Your task to perform on an android device: Search for Mexican restaurants on Maps Image 0: 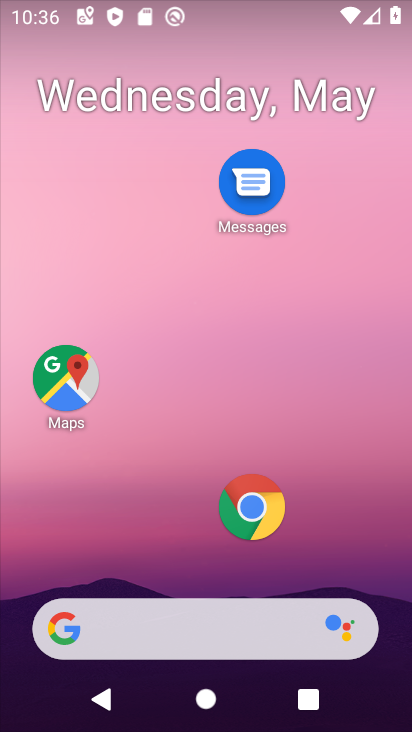
Step 0: click (68, 380)
Your task to perform on an android device: Search for Mexican restaurants on Maps Image 1: 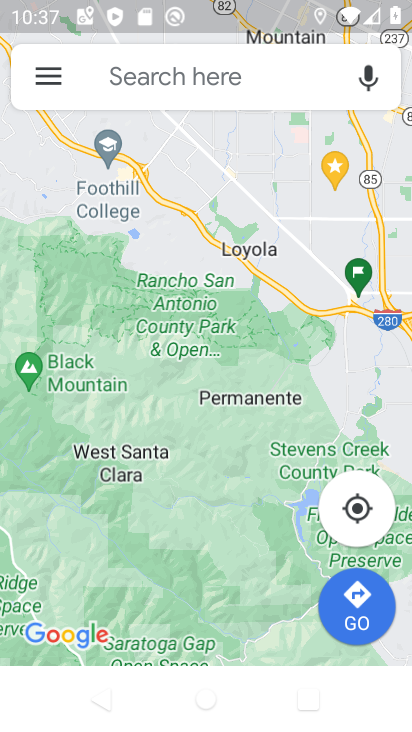
Step 1: click (164, 70)
Your task to perform on an android device: Search for Mexican restaurants on Maps Image 2: 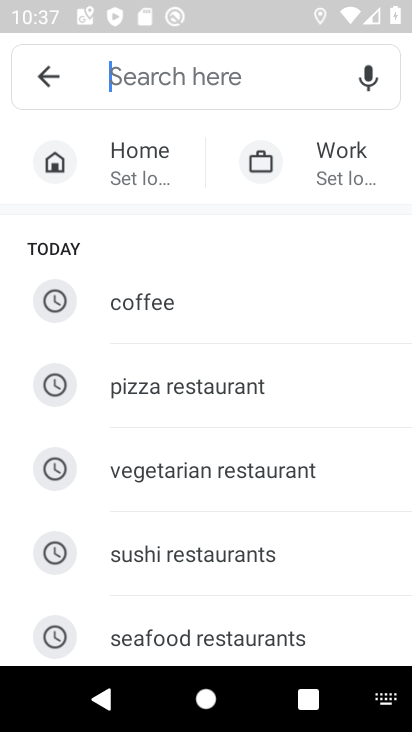
Step 2: drag from (189, 594) to (226, 180)
Your task to perform on an android device: Search for Mexican restaurants on Maps Image 3: 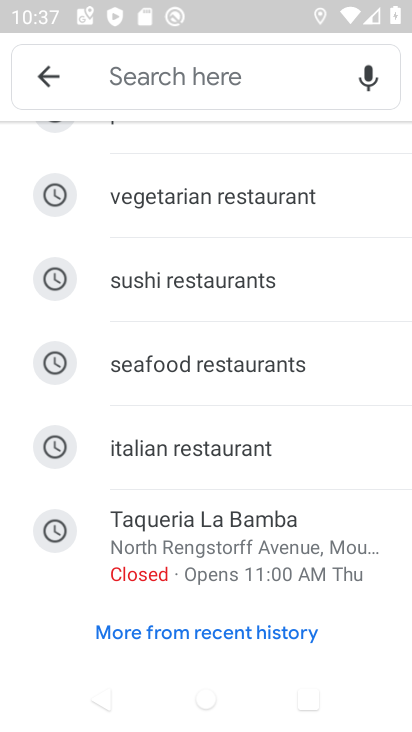
Step 3: click (148, 76)
Your task to perform on an android device: Search for Mexican restaurants on Maps Image 4: 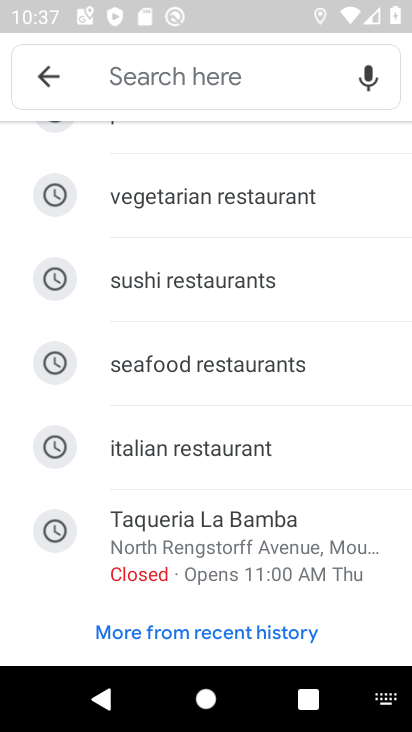
Step 4: type "mexican"
Your task to perform on an android device: Search for Mexican restaurants on Maps Image 5: 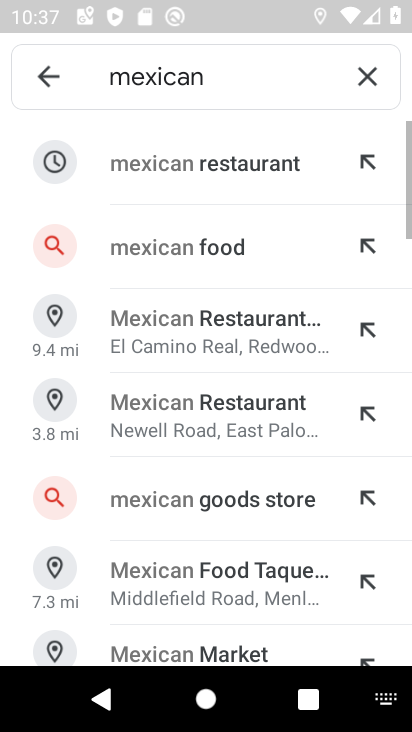
Step 5: click (170, 178)
Your task to perform on an android device: Search for Mexican restaurants on Maps Image 6: 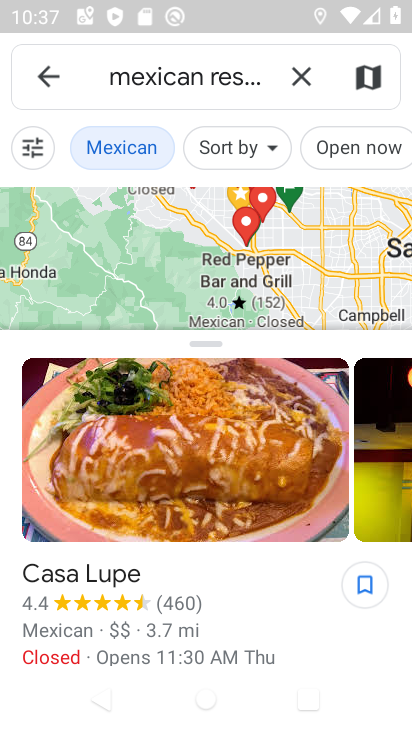
Step 6: task complete